Your task to perform on an android device: Search for Italian restaurants on Maps Image 0: 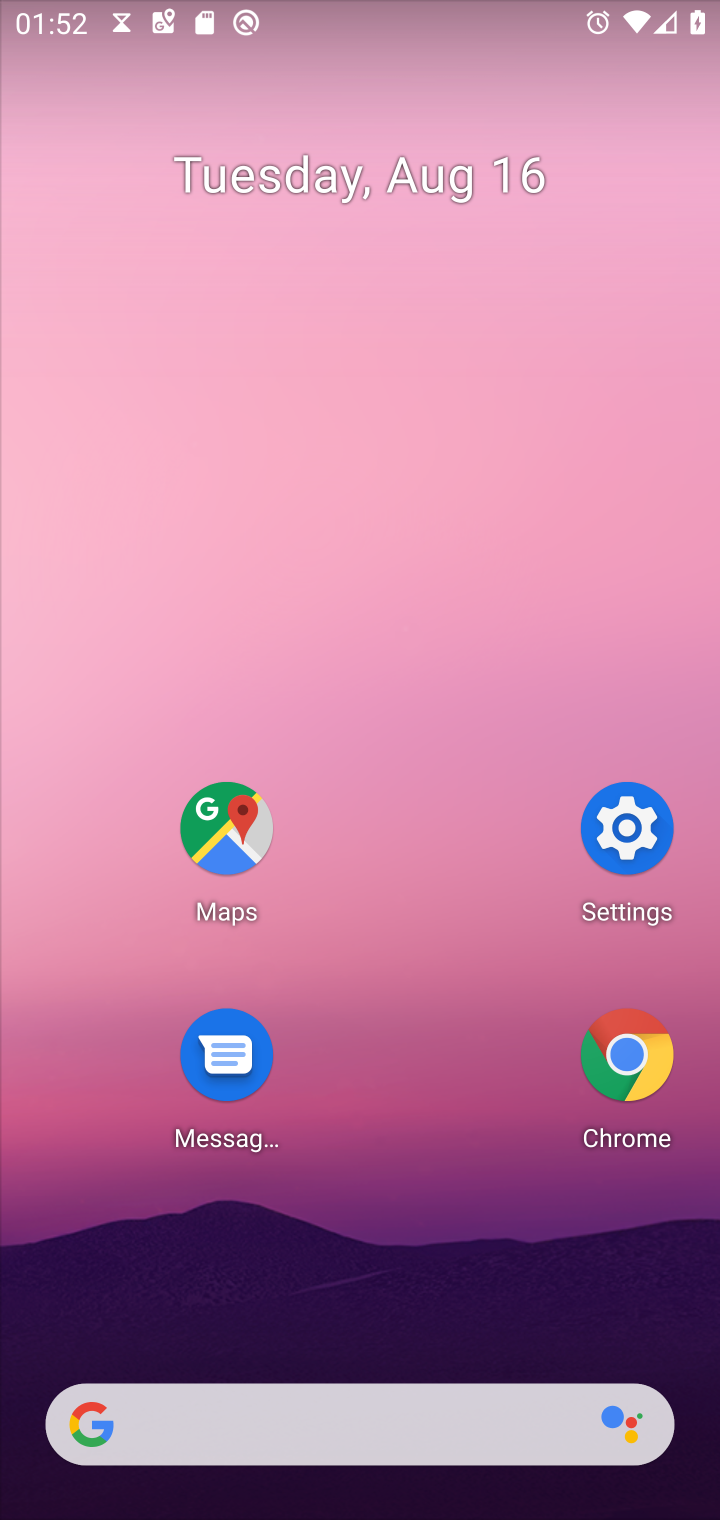
Step 0: click (248, 825)
Your task to perform on an android device: Search for Italian restaurants on Maps Image 1: 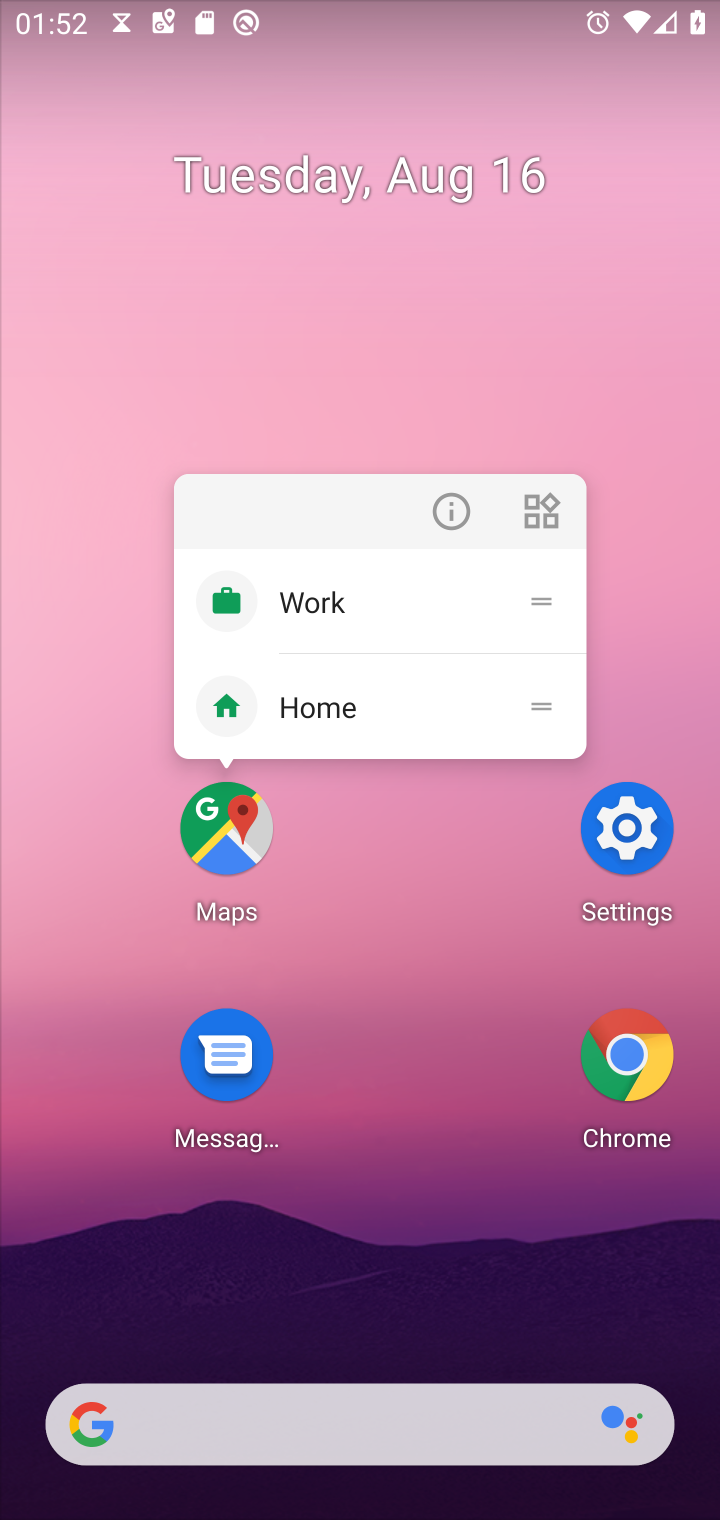
Step 1: click (228, 841)
Your task to perform on an android device: Search for Italian restaurants on Maps Image 2: 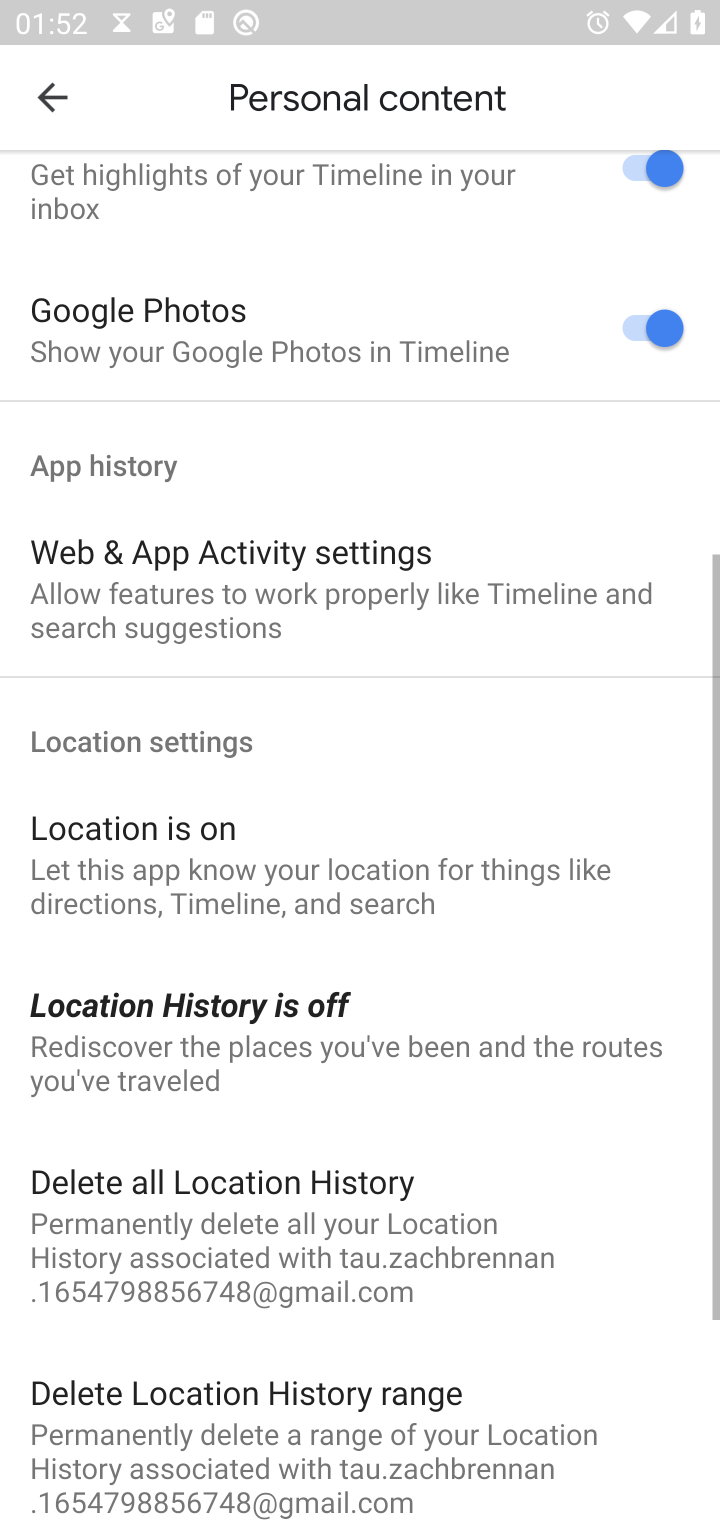
Step 2: press back button
Your task to perform on an android device: Search for Italian restaurants on Maps Image 3: 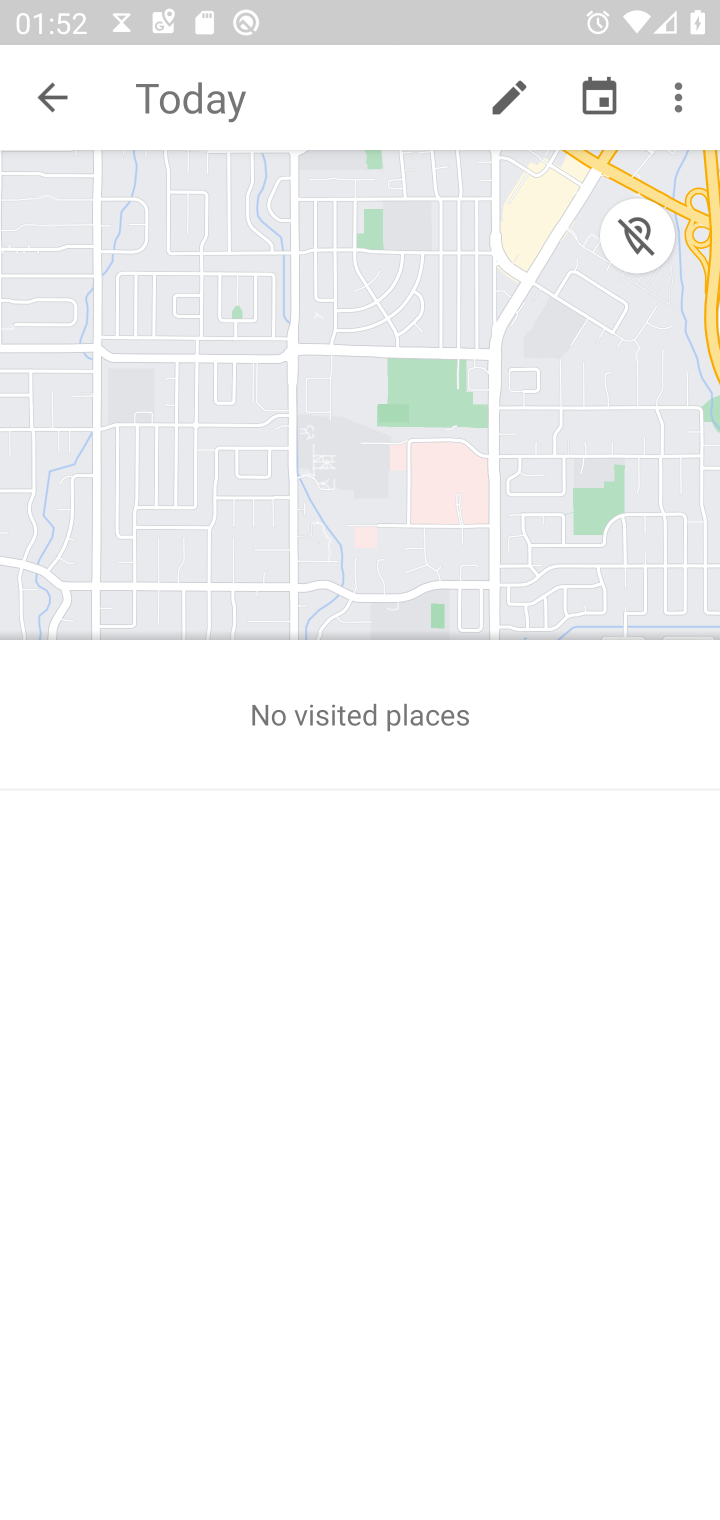
Step 3: press back button
Your task to perform on an android device: Search for Italian restaurants on Maps Image 4: 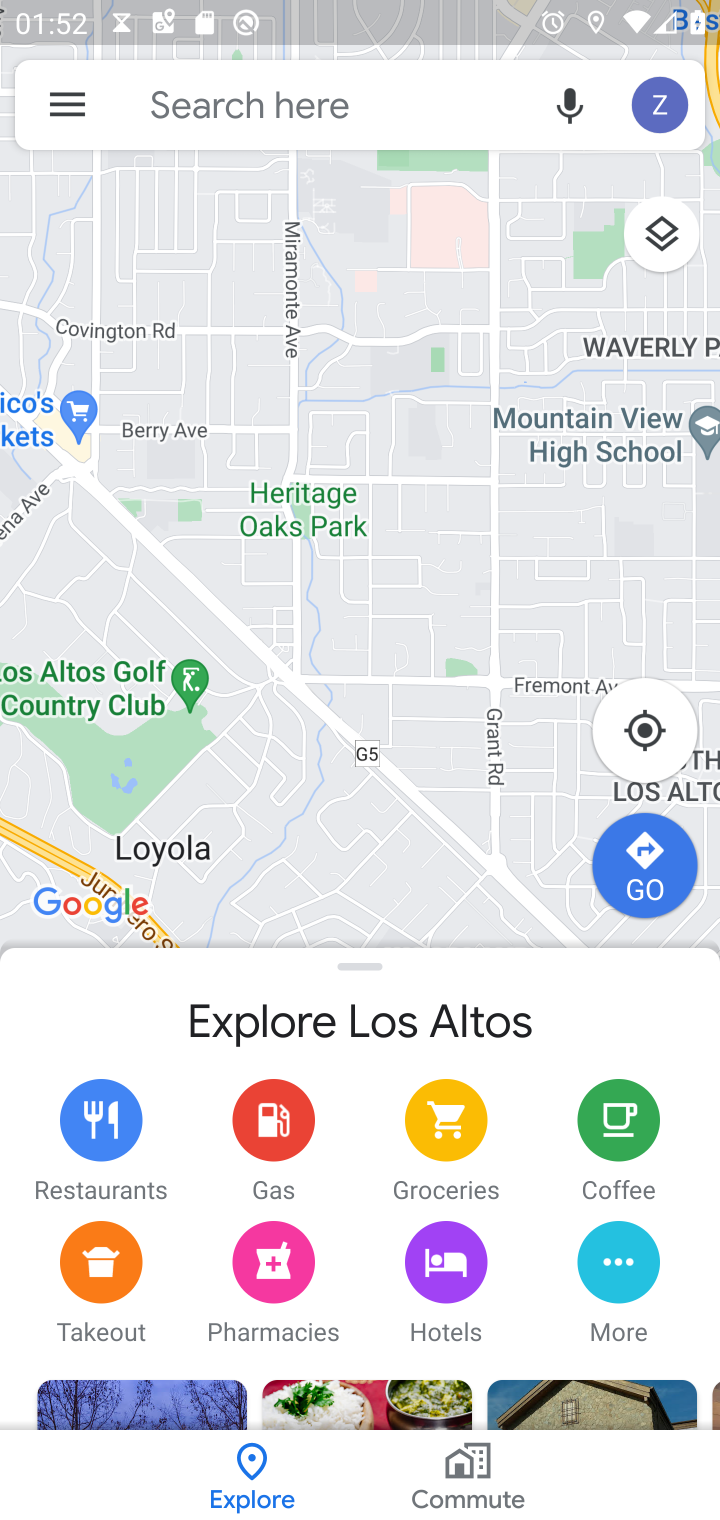
Step 4: click (287, 100)
Your task to perform on an android device: Search for Italian restaurants on Maps Image 5: 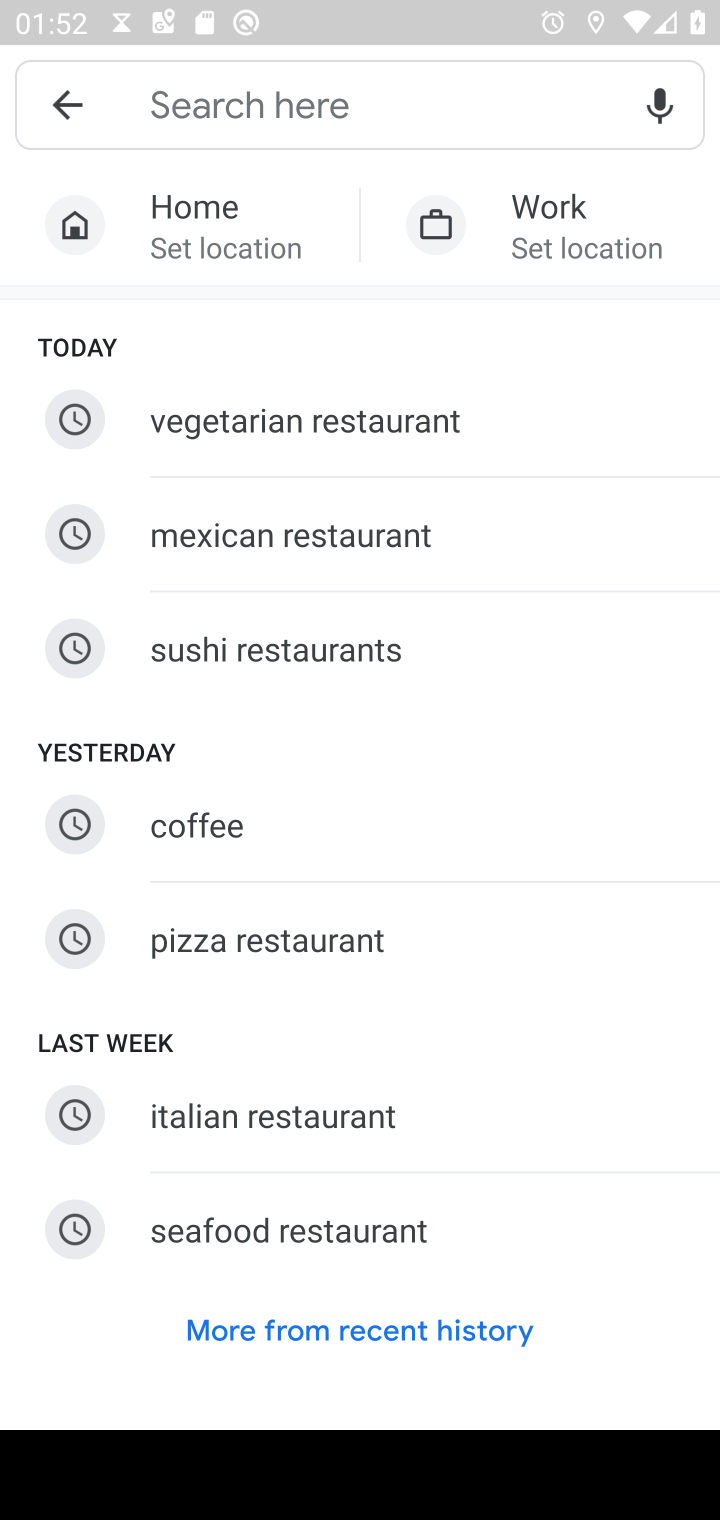
Step 5: click (210, 1127)
Your task to perform on an android device: Search for Italian restaurants on Maps Image 6: 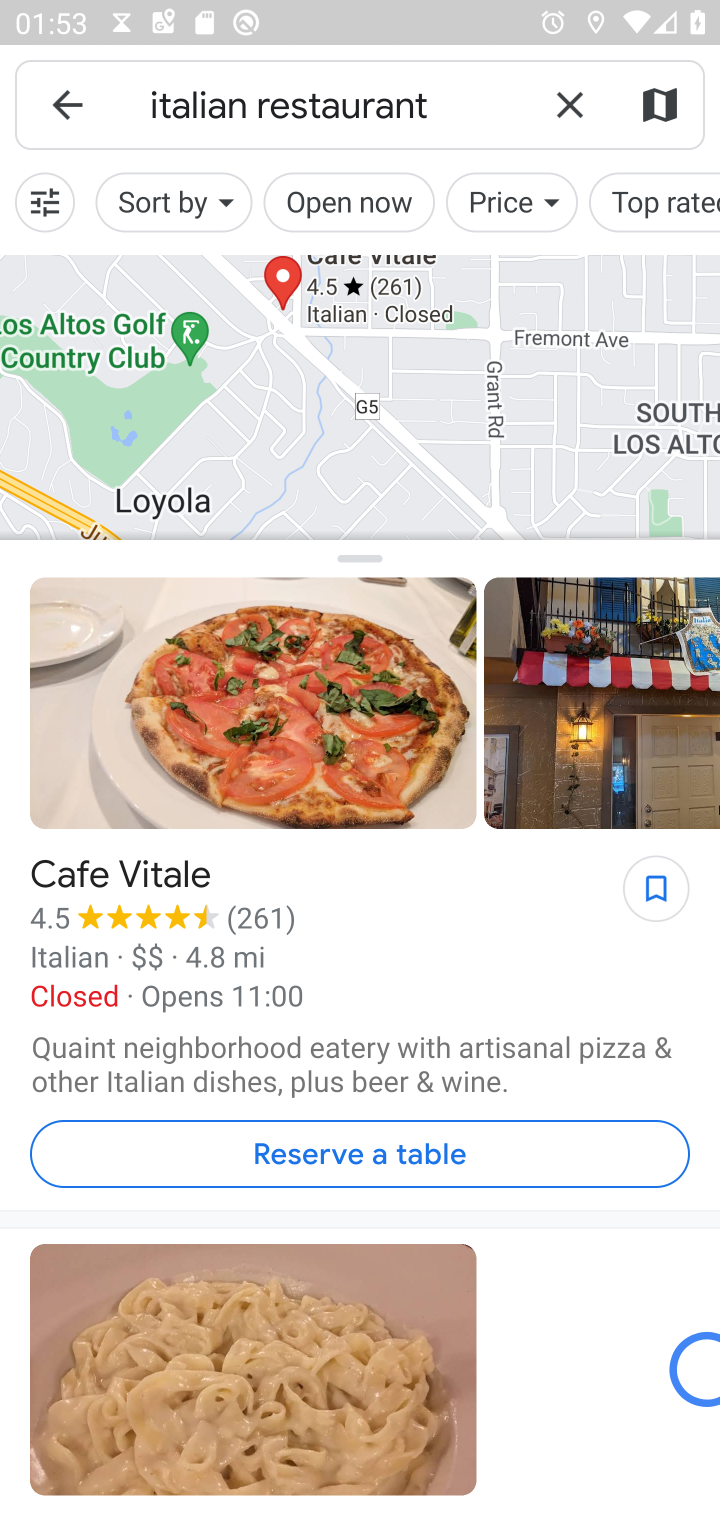
Step 6: task complete